Your task to perform on an android device: show emergency info Image 0: 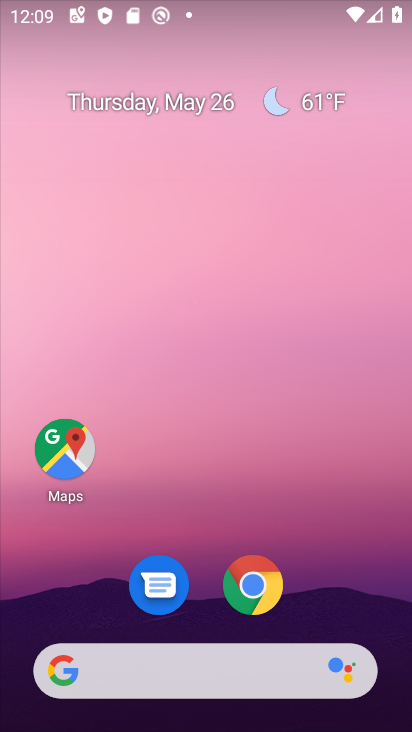
Step 0: drag from (240, 531) to (243, 56)
Your task to perform on an android device: show emergency info Image 1: 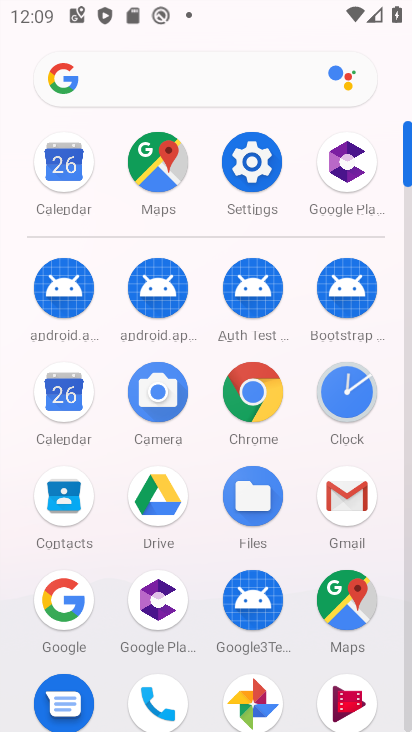
Step 1: click (250, 171)
Your task to perform on an android device: show emergency info Image 2: 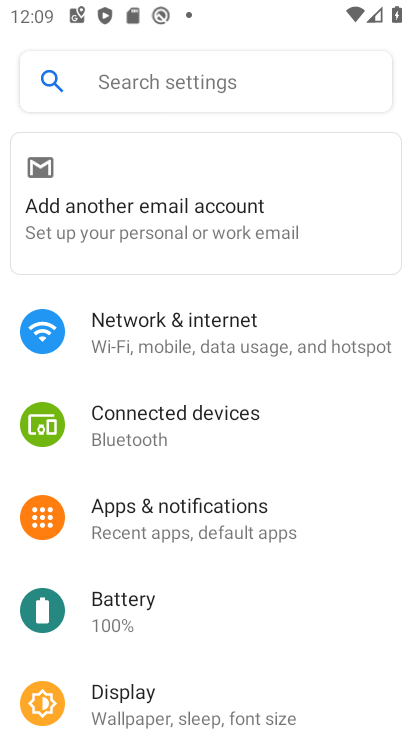
Step 2: drag from (209, 615) to (261, 252)
Your task to perform on an android device: show emergency info Image 3: 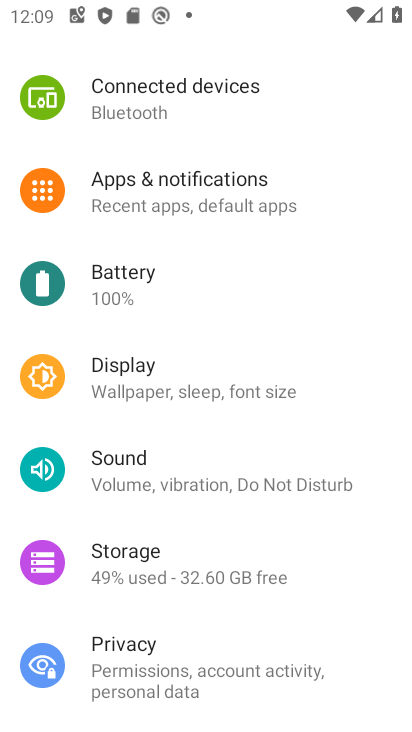
Step 3: drag from (267, 607) to (254, 123)
Your task to perform on an android device: show emergency info Image 4: 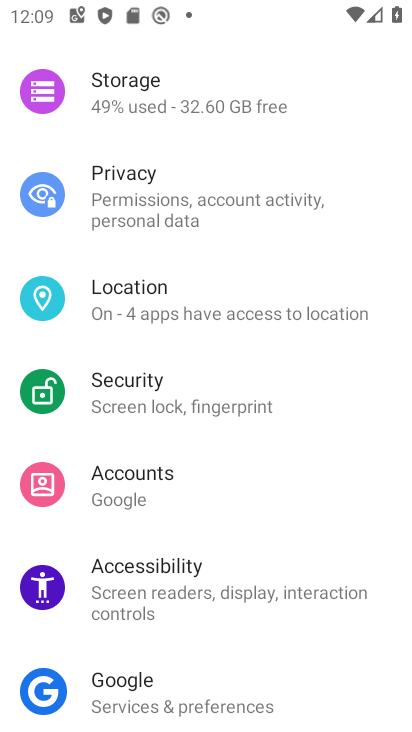
Step 4: drag from (199, 532) to (230, 150)
Your task to perform on an android device: show emergency info Image 5: 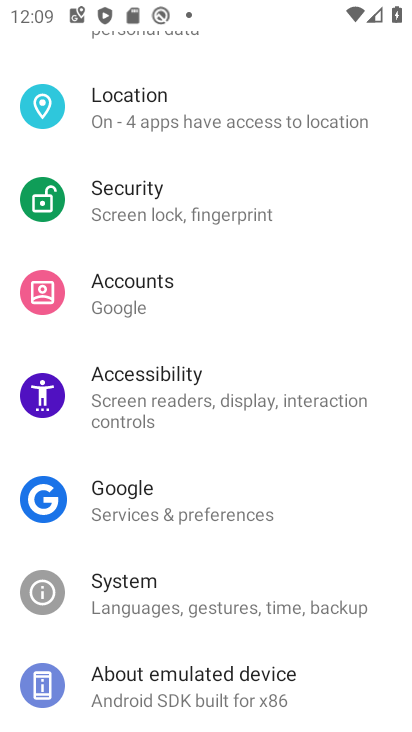
Step 5: click (195, 680)
Your task to perform on an android device: show emergency info Image 6: 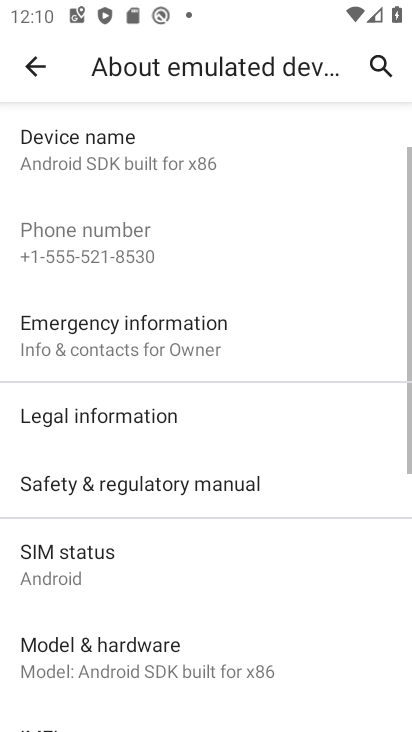
Step 6: click (221, 326)
Your task to perform on an android device: show emergency info Image 7: 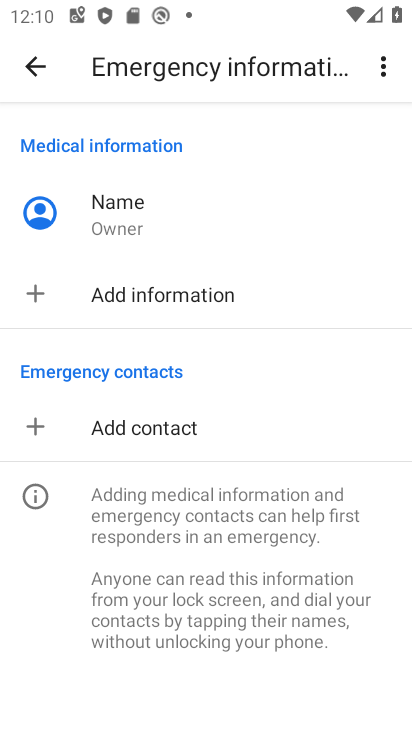
Step 7: task complete